Your task to perform on an android device: Toggle the flashlight Image 0: 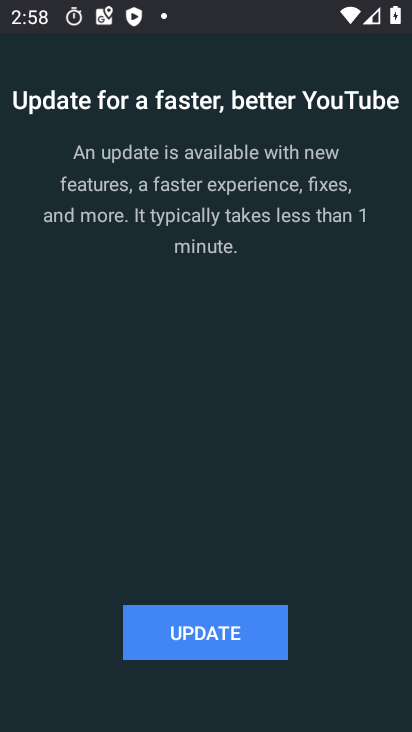
Step 0: press home button
Your task to perform on an android device: Toggle the flashlight Image 1: 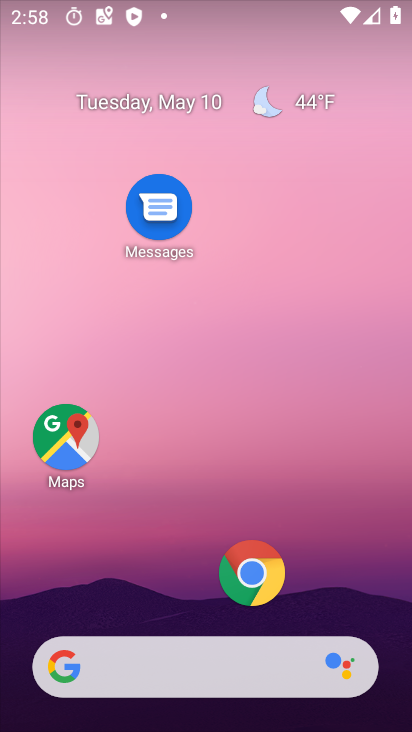
Step 1: drag from (205, 604) to (251, 205)
Your task to perform on an android device: Toggle the flashlight Image 2: 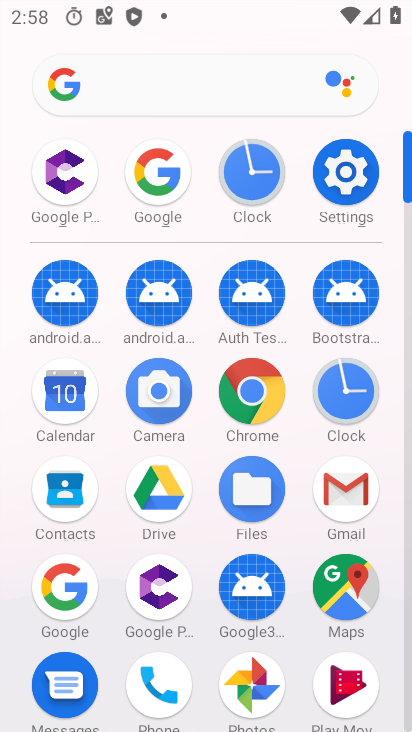
Step 2: click (327, 170)
Your task to perform on an android device: Toggle the flashlight Image 3: 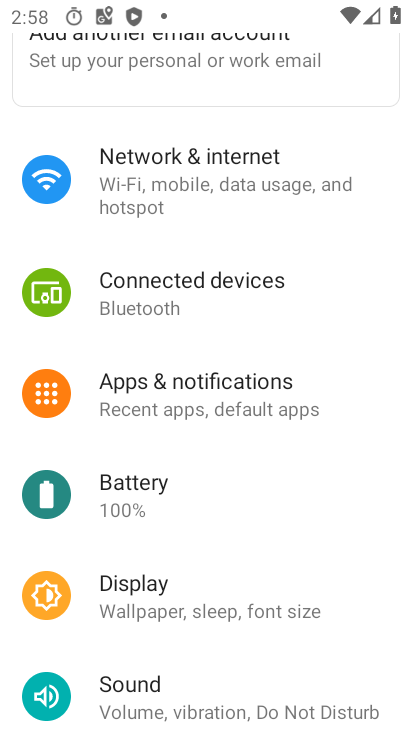
Step 3: click (171, 200)
Your task to perform on an android device: Toggle the flashlight Image 4: 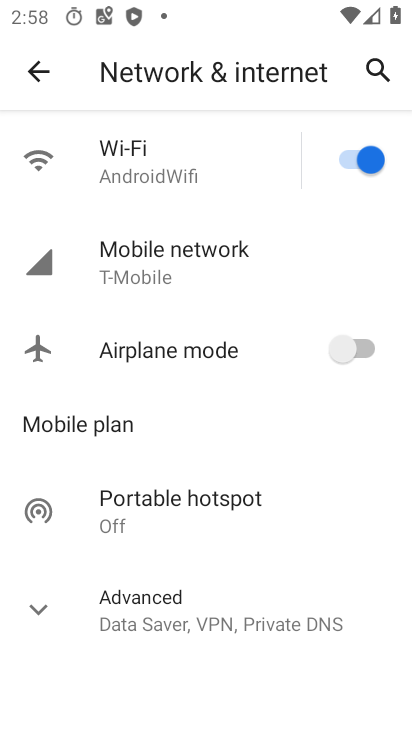
Step 4: task complete